Your task to perform on an android device: see tabs open on other devices in the chrome app Image 0: 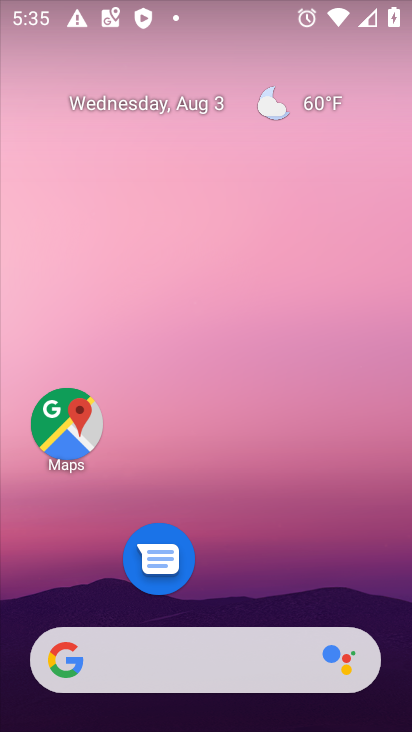
Step 0: drag from (218, 636) to (187, 135)
Your task to perform on an android device: see tabs open on other devices in the chrome app Image 1: 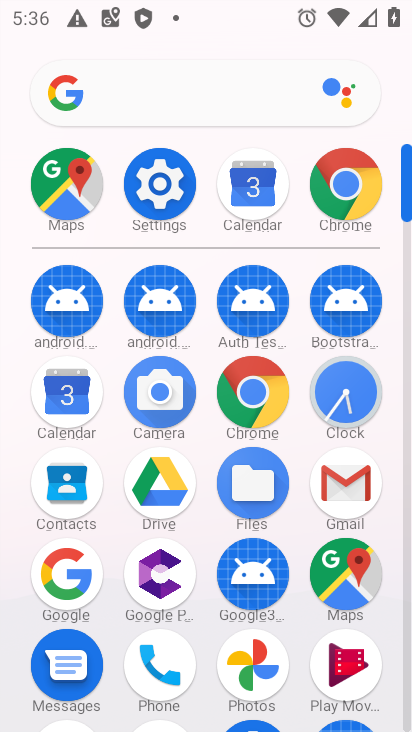
Step 1: click (336, 190)
Your task to perform on an android device: see tabs open on other devices in the chrome app Image 2: 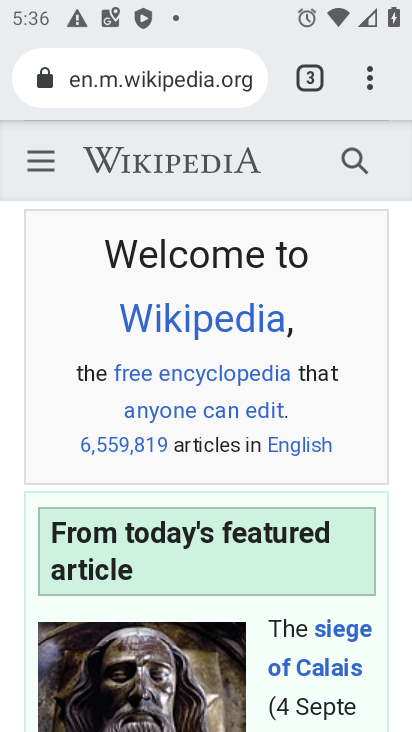
Step 2: click (360, 75)
Your task to perform on an android device: see tabs open on other devices in the chrome app Image 3: 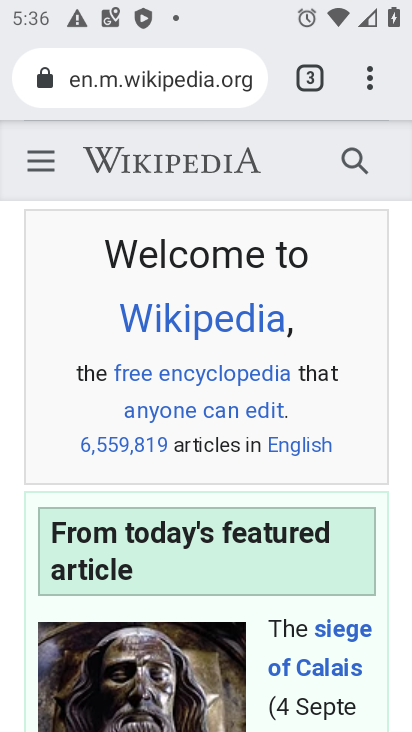
Step 3: click (304, 82)
Your task to perform on an android device: see tabs open on other devices in the chrome app Image 4: 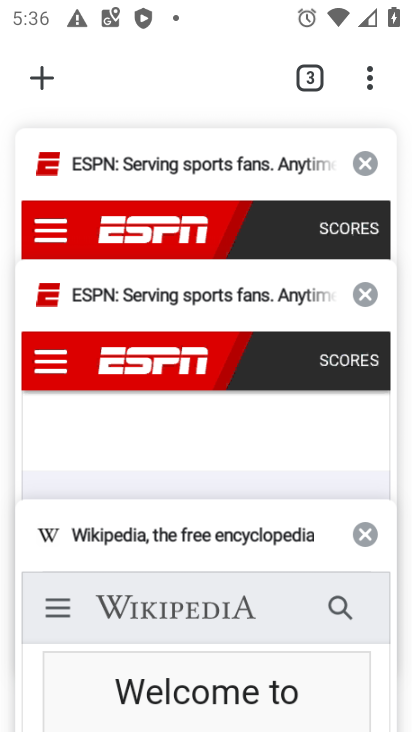
Step 4: task complete